Your task to perform on an android device: delete the emails in spam in the gmail app Image 0: 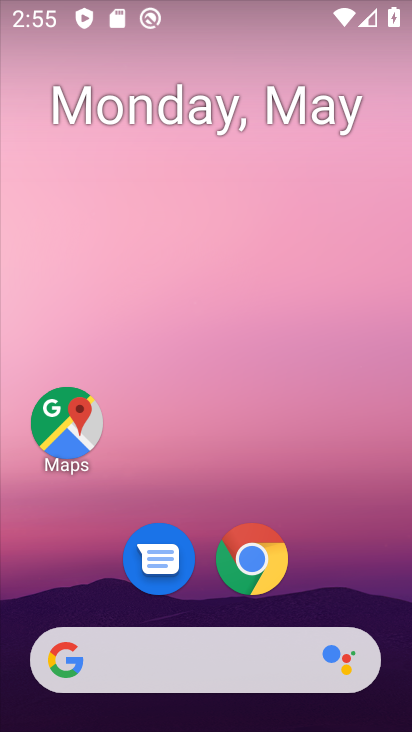
Step 0: drag from (326, 700) to (269, 65)
Your task to perform on an android device: delete the emails in spam in the gmail app Image 1: 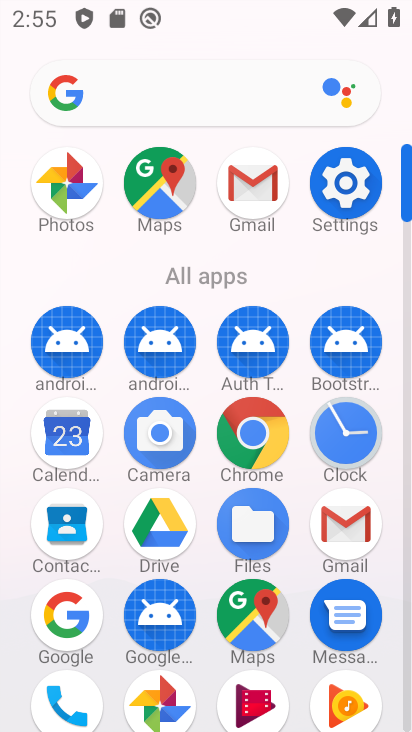
Step 1: click (343, 517)
Your task to perform on an android device: delete the emails in spam in the gmail app Image 2: 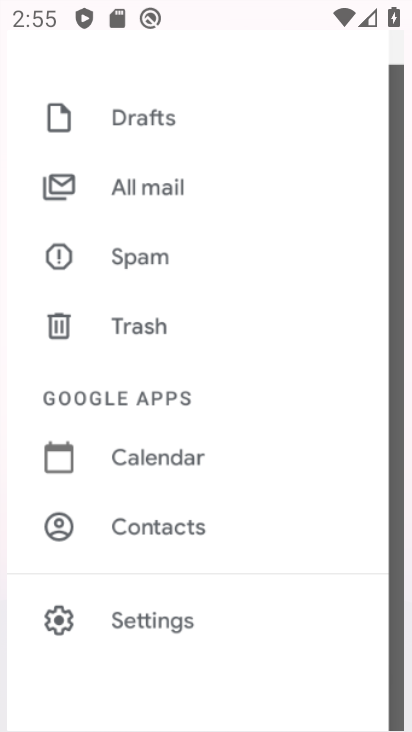
Step 2: click (346, 517)
Your task to perform on an android device: delete the emails in spam in the gmail app Image 3: 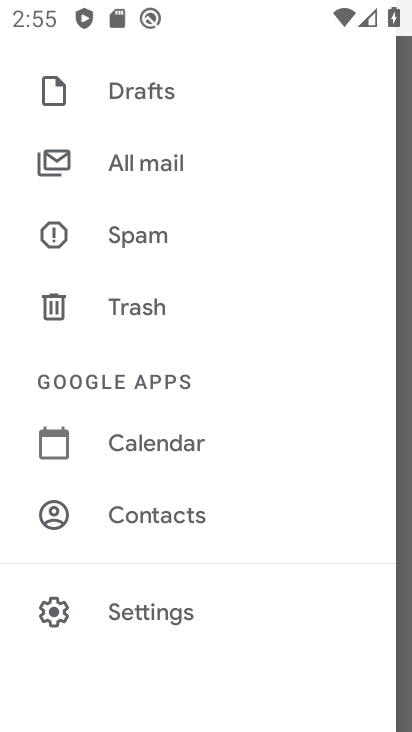
Step 3: click (124, 223)
Your task to perform on an android device: delete the emails in spam in the gmail app Image 4: 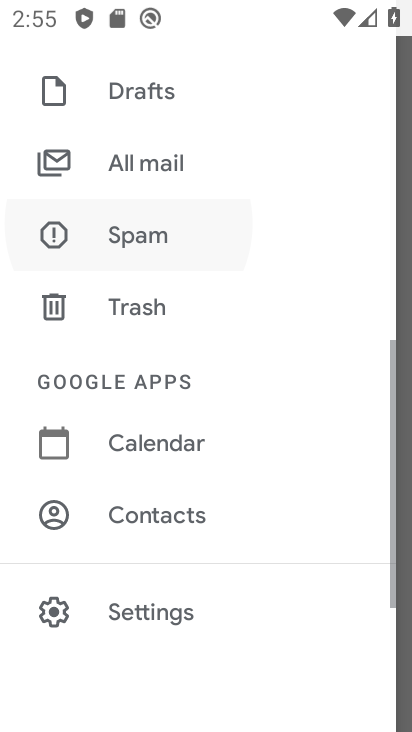
Step 4: click (123, 229)
Your task to perform on an android device: delete the emails in spam in the gmail app Image 5: 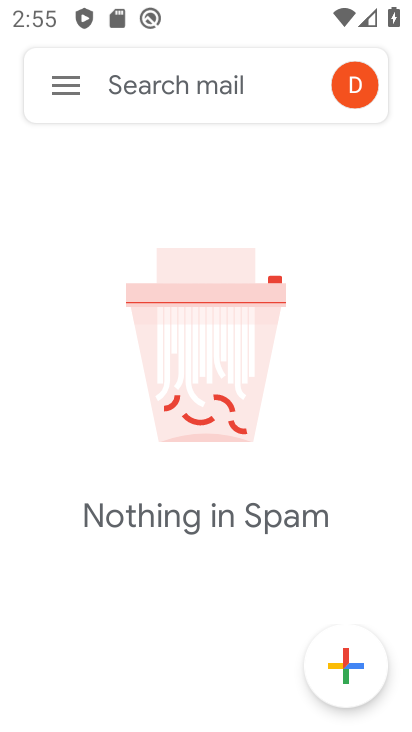
Step 5: task complete